Your task to perform on an android device: What's the latest video from GameSpot Reviews? Image 0: 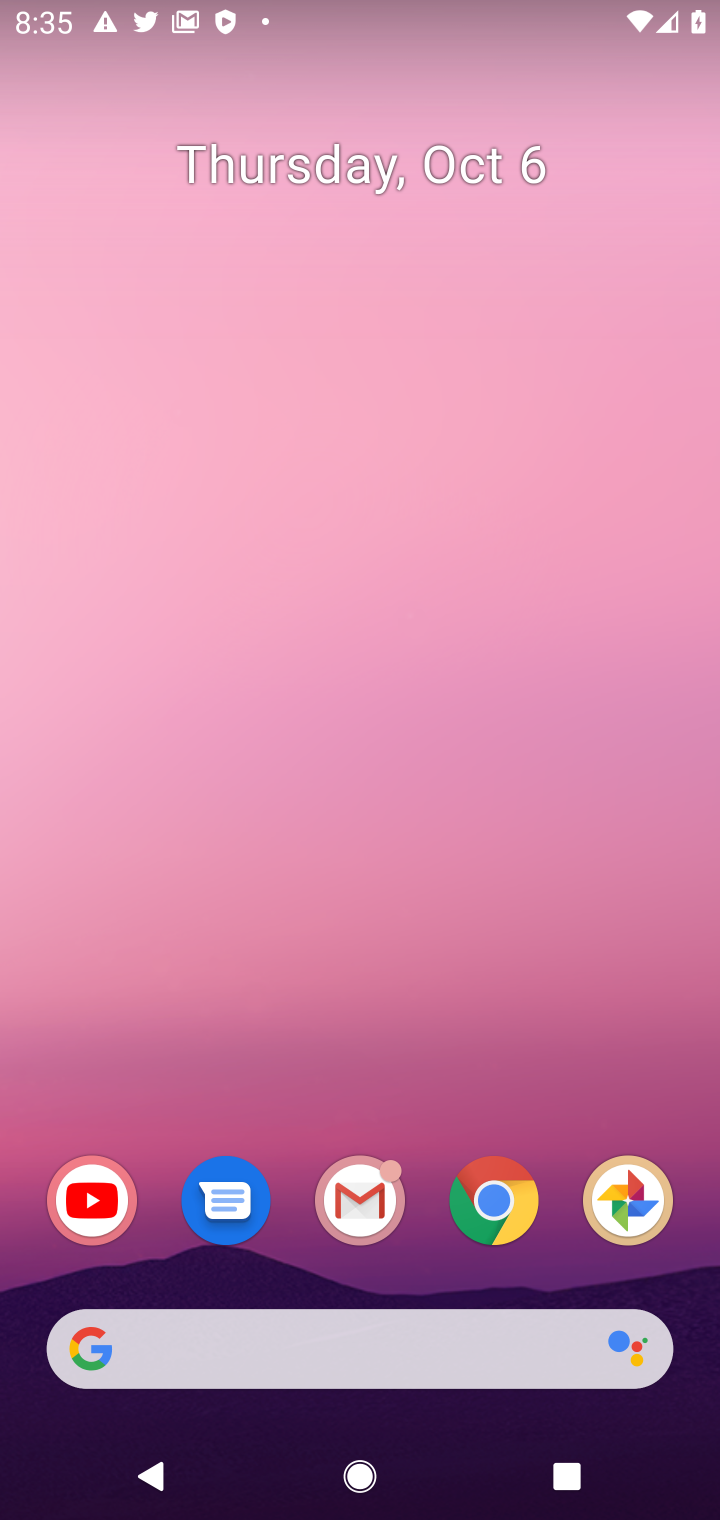
Step 0: click (506, 1216)
Your task to perform on an android device: What's the latest video from GameSpot Reviews? Image 1: 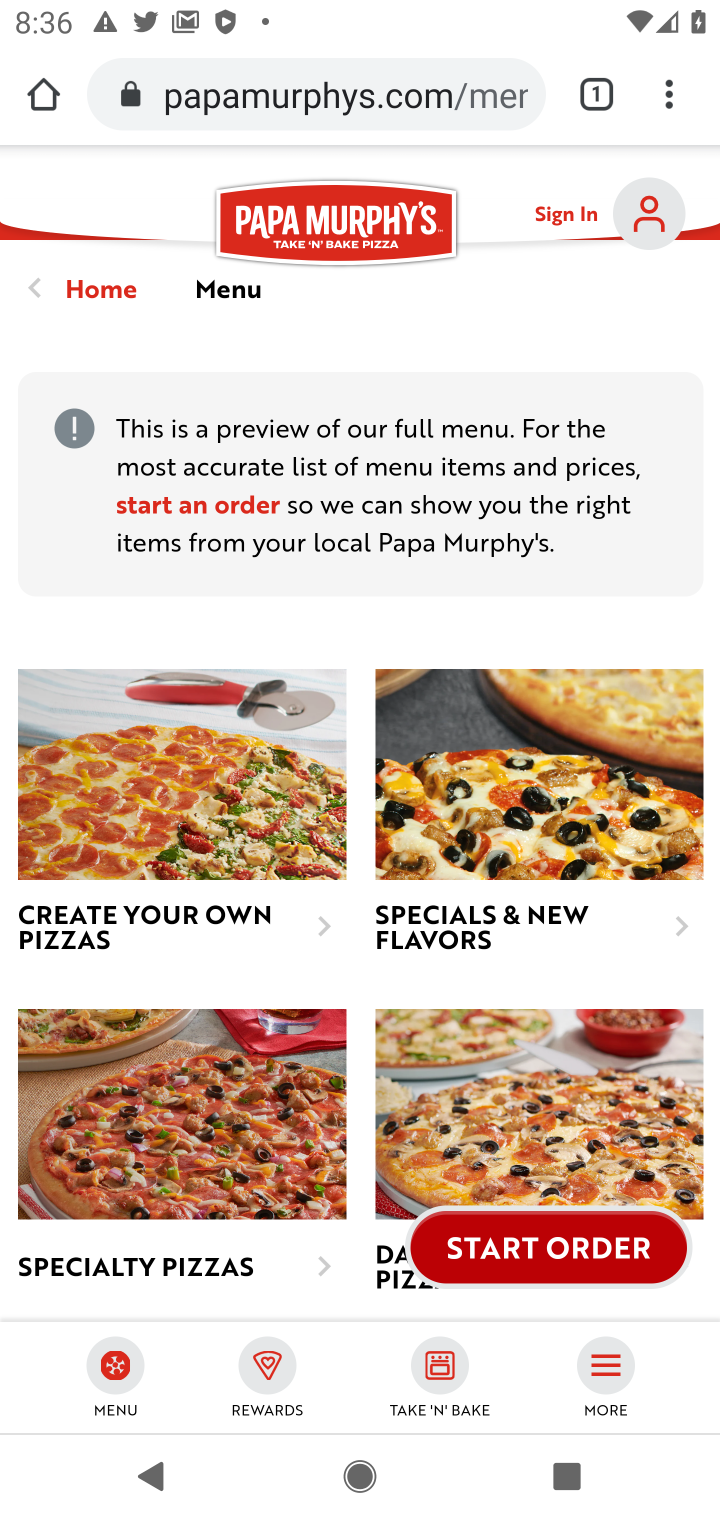
Step 1: click (426, 81)
Your task to perform on an android device: What's the latest video from GameSpot Reviews? Image 2: 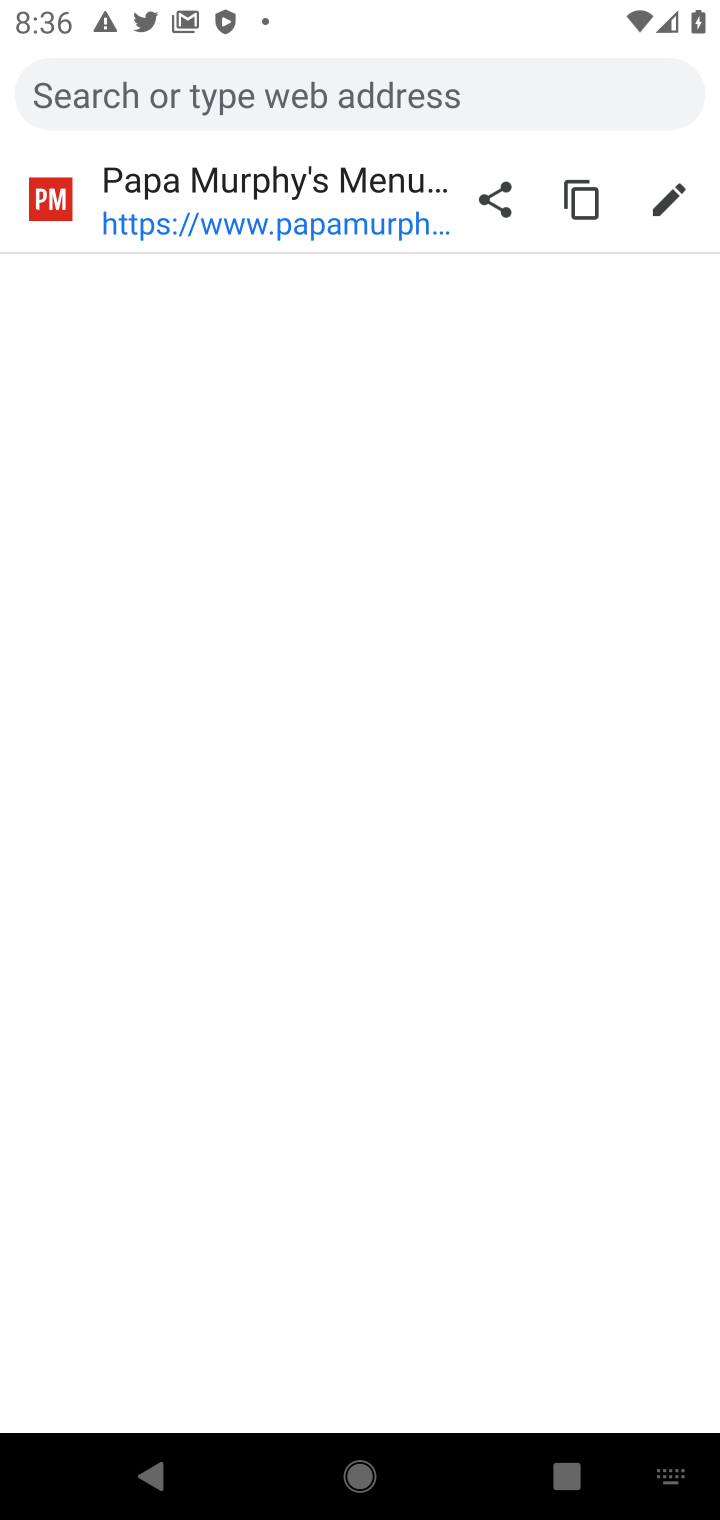
Step 2: type "gamespot reviews"
Your task to perform on an android device: What's the latest video from GameSpot Reviews? Image 3: 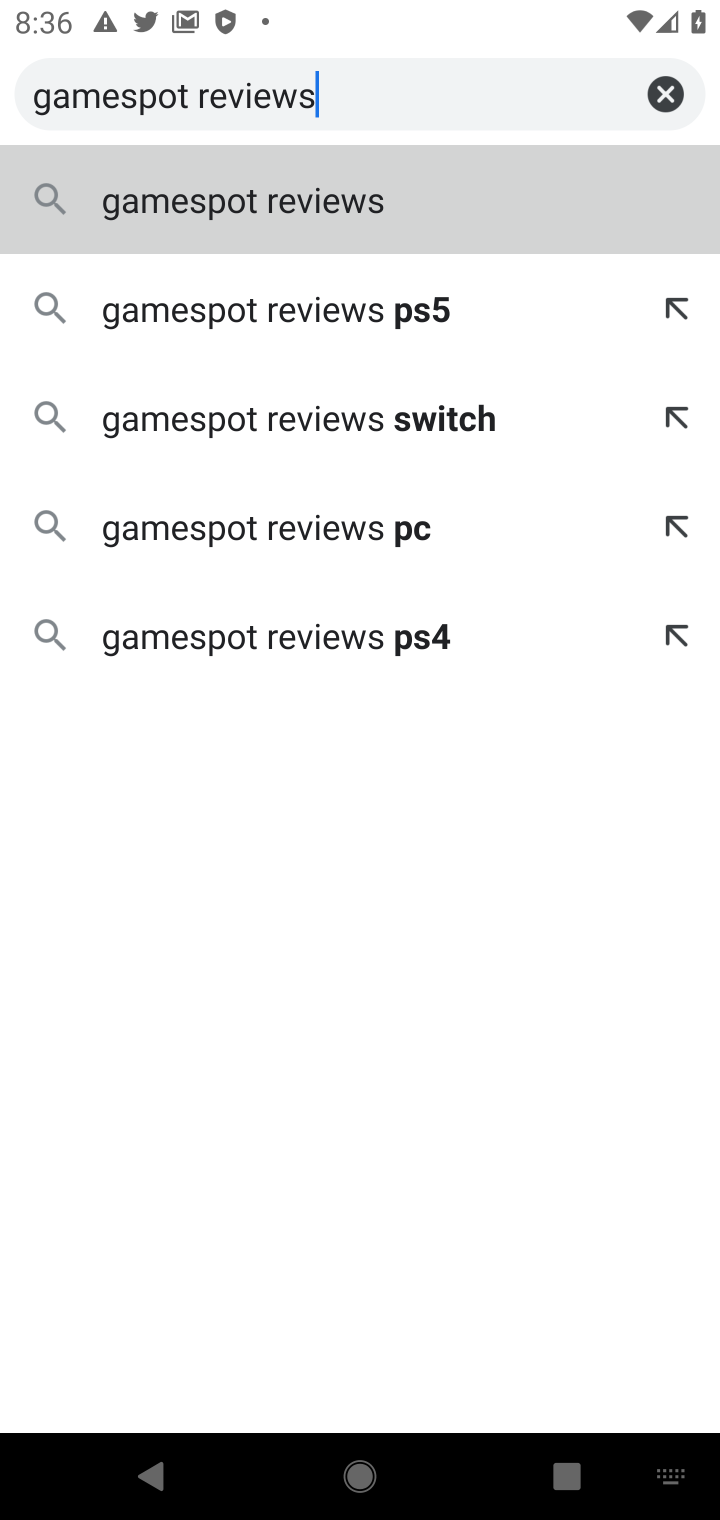
Step 3: click (292, 216)
Your task to perform on an android device: What's the latest video from GameSpot Reviews? Image 4: 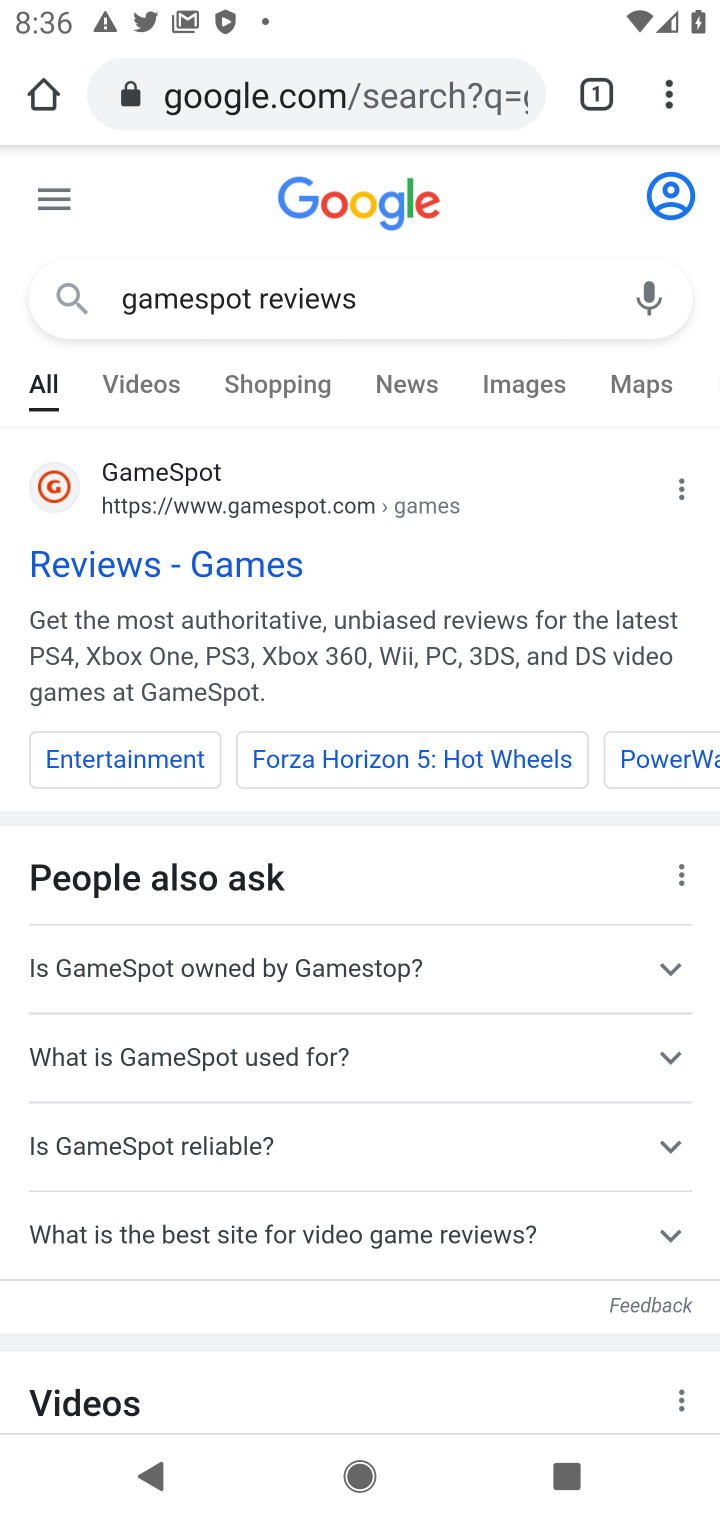
Step 4: click (122, 561)
Your task to perform on an android device: What's the latest video from GameSpot Reviews? Image 5: 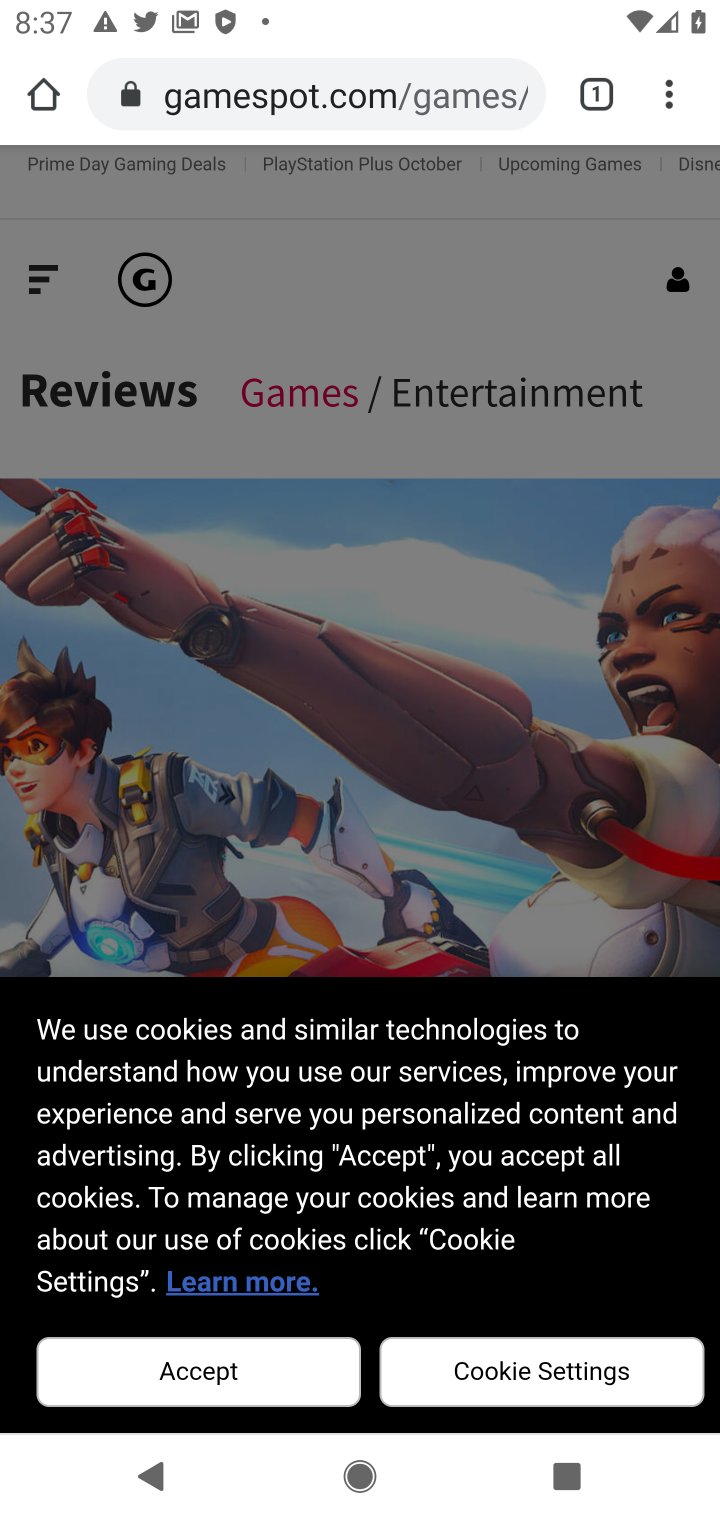
Step 5: click (297, 1383)
Your task to perform on an android device: What's the latest video from GameSpot Reviews? Image 6: 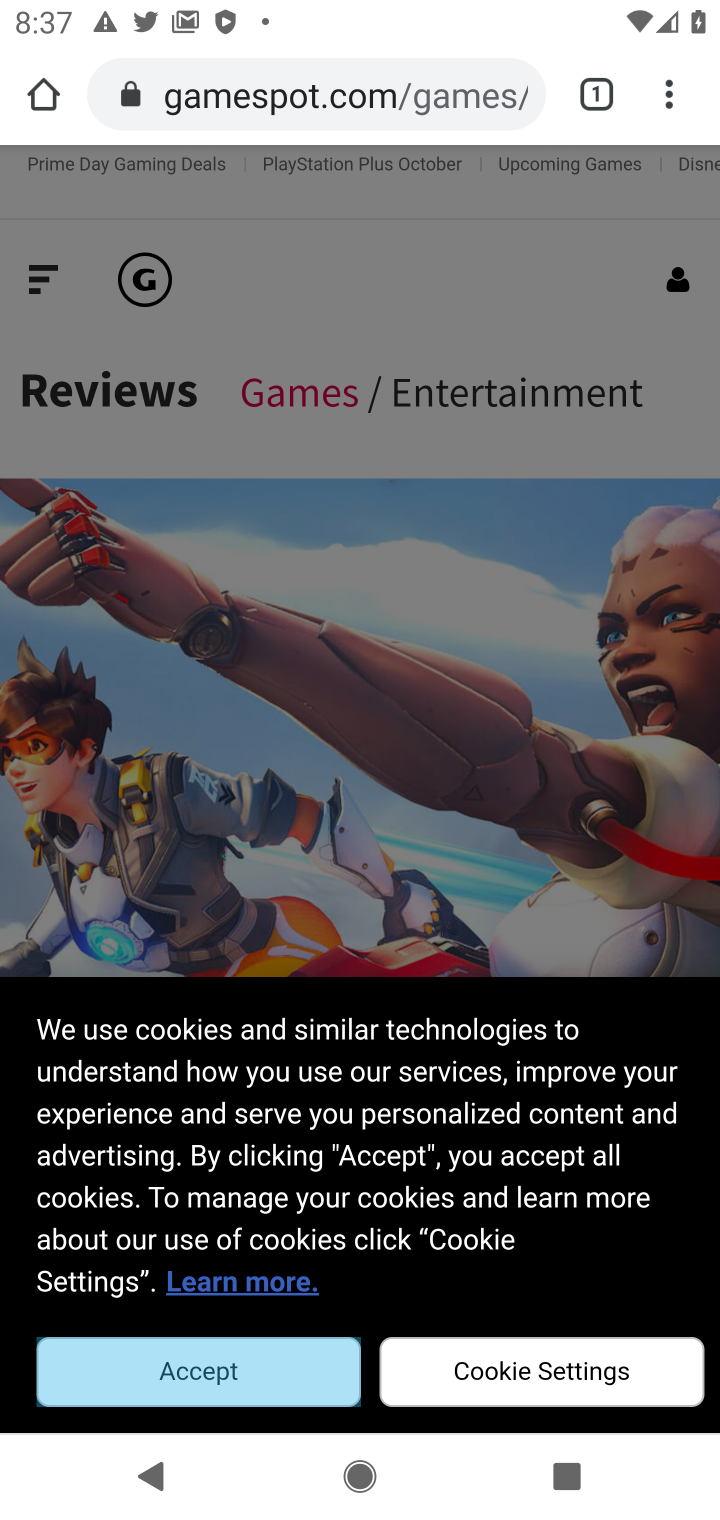
Step 6: click (239, 1372)
Your task to perform on an android device: What's the latest video from GameSpot Reviews? Image 7: 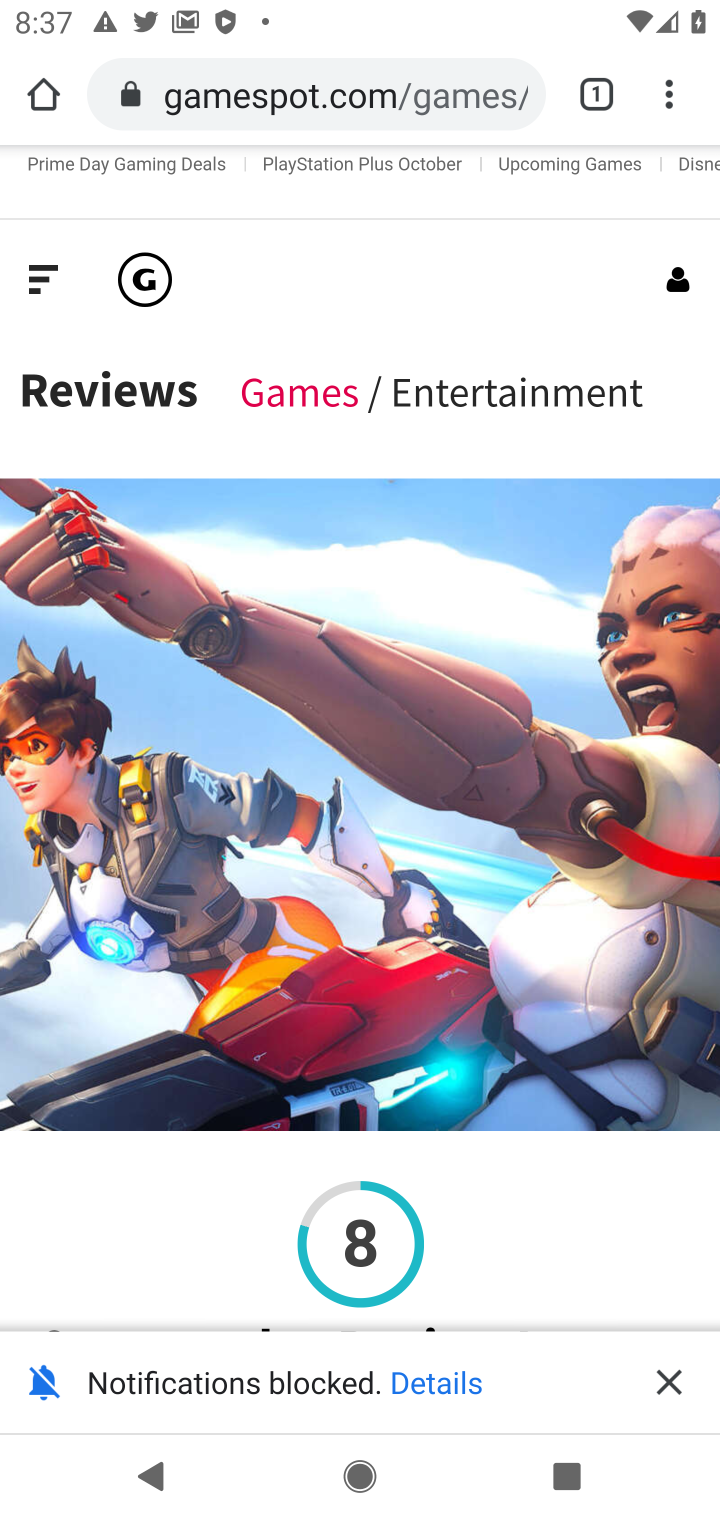
Step 7: task complete